Your task to perform on an android device: add a contact in the contacts app Image 0: 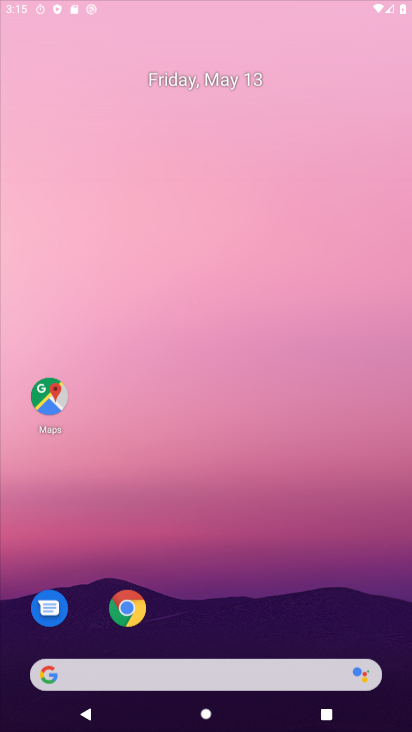
Step 0: press home button
Your task to perform on an android device: add a contact in the contacts app Image 1: 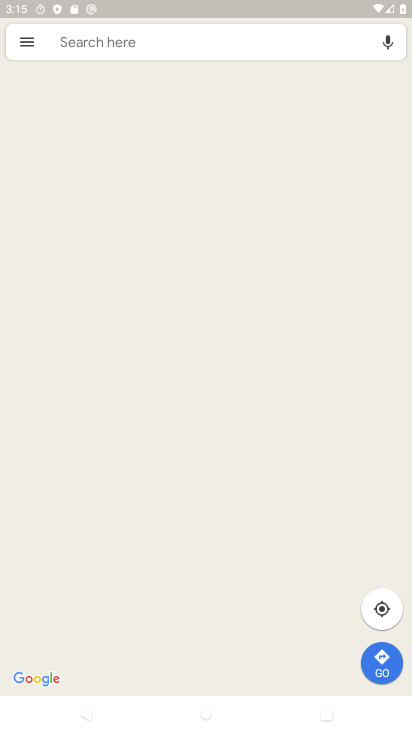
Step 1: click (403, 129)
Your task to perform on an android device: add a contact in the contacts app Image 2: 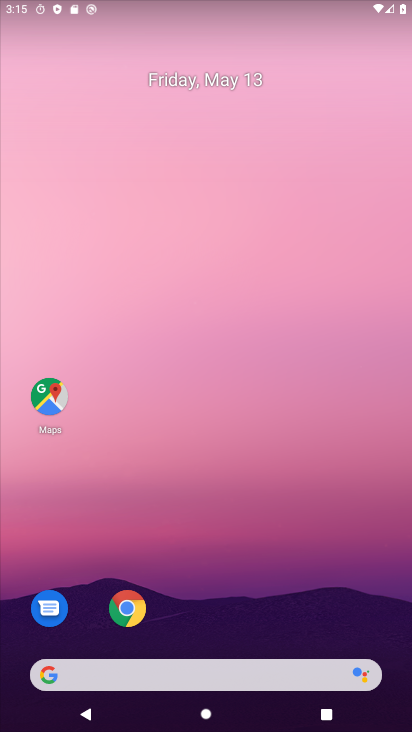
Step 2: drag from (308, 611) to (271, 0)
Your task to perform on an android device: add a contact in the contacts app Image 3: 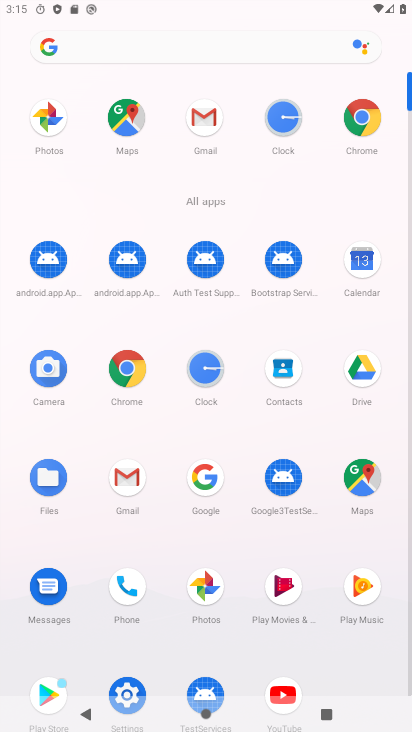
Step 3: click (280, 378)
Your task to perform on an android device: add a contact in the contacts app Image 4: 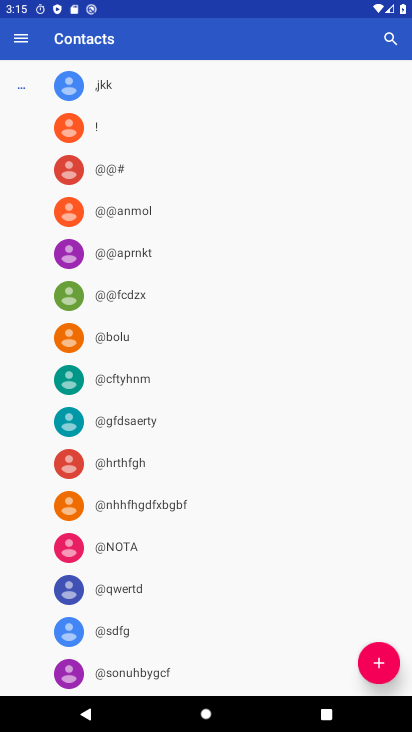
Step 4: click (382, 639)
Your task to perform on an android device: add a contact in the contacts app Image 5: 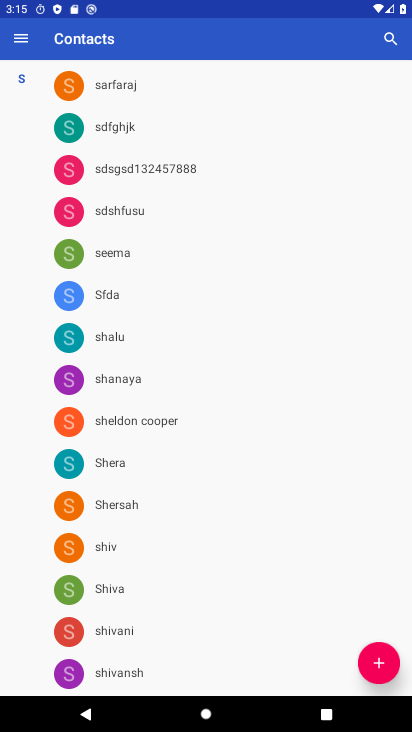
Step 5: click (372, 672)
Your task to perform on an android device: add a contact in the contacts app Image 6: 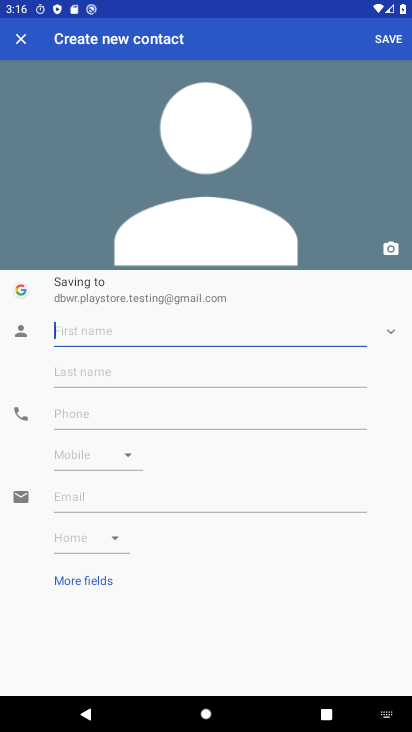
Step 6: type "hhhh"
Your task to perform on an android device: add a contact in the contacts app Image 7: 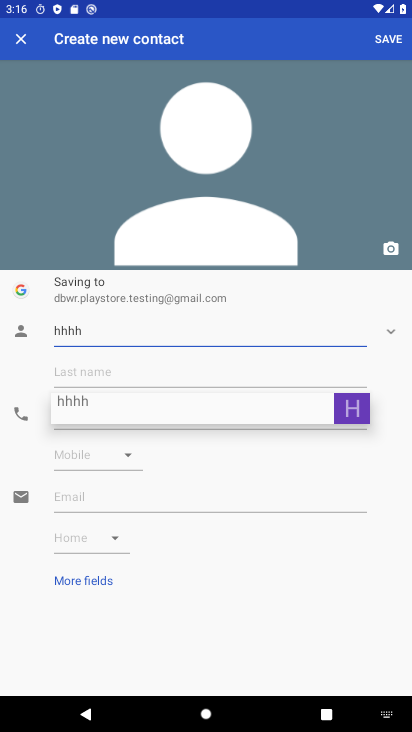
Step 7: click (170, 396)
Your task to perform on an android device: add a contact in the contacts app Image 8: 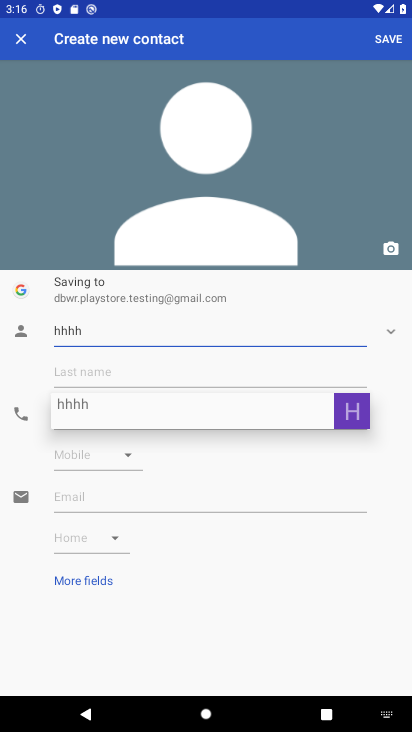
Step 8: click (170, 396)
Your task to perform on an android device: add a contact in the contacts app Image 9: 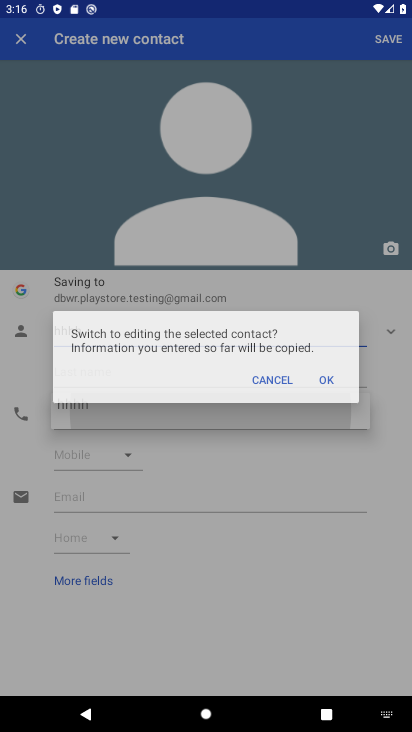
Step 9: click (170, 396)
Your task to perform on an android device: add a contact in the contacts app Image 10: 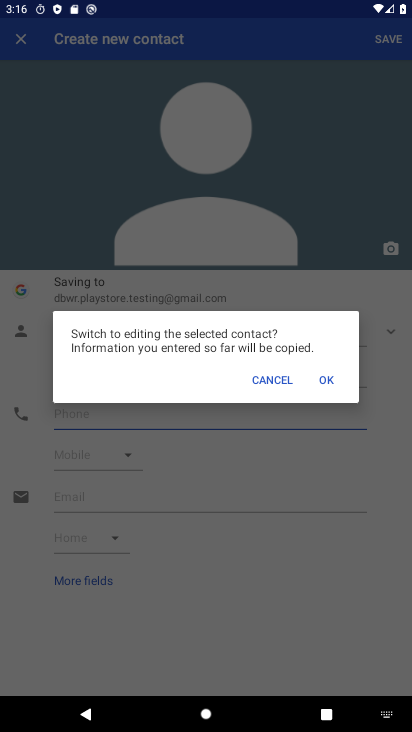
Step 10: click (276, 382)
Your task to perform on an android device: add a contact in the contacts app Image 11: 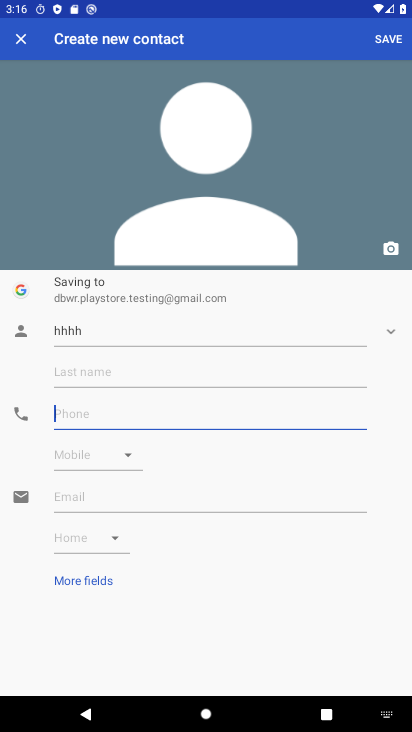
Step 11: type "000999"
Your task to perform on an android device: add a contact in the contacts app Image 12: 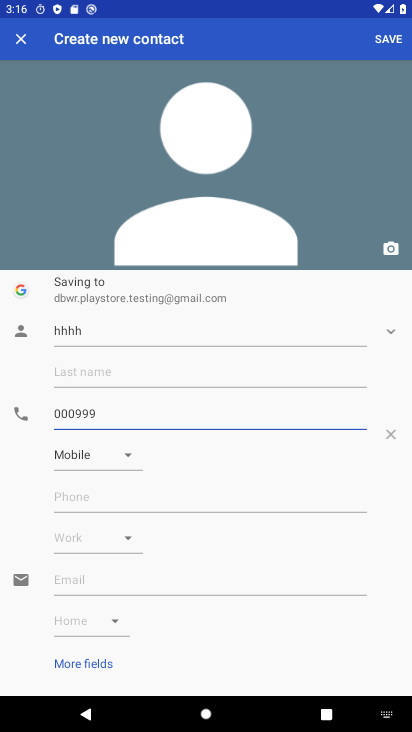
Step 12: click (395, 39)
Your task to perform on an android device: add a contact in the contacts app Image 13: 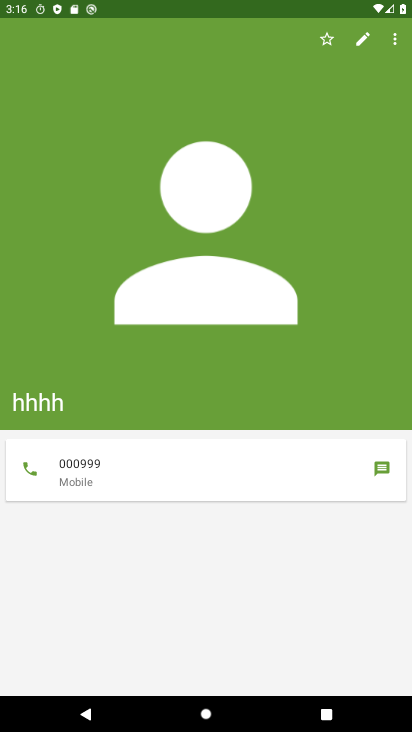
Step 13: task complete